Your task to perform on an android device: Is it going to rain tomorrow? Image 0: 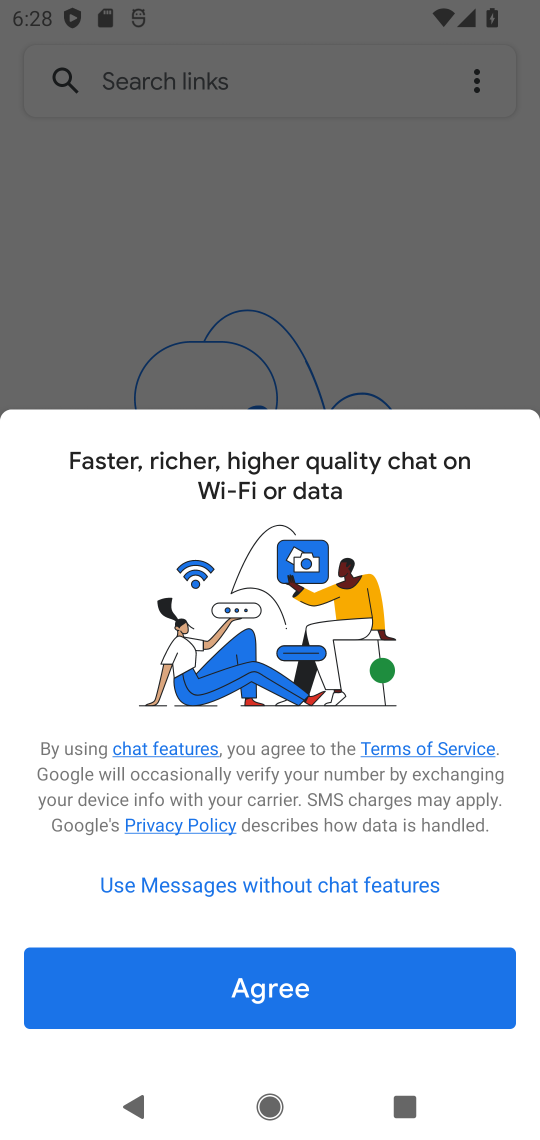
Step 0: press home button
Your task to perform on an android device: Is it going to rain tomorrow? Image 1: 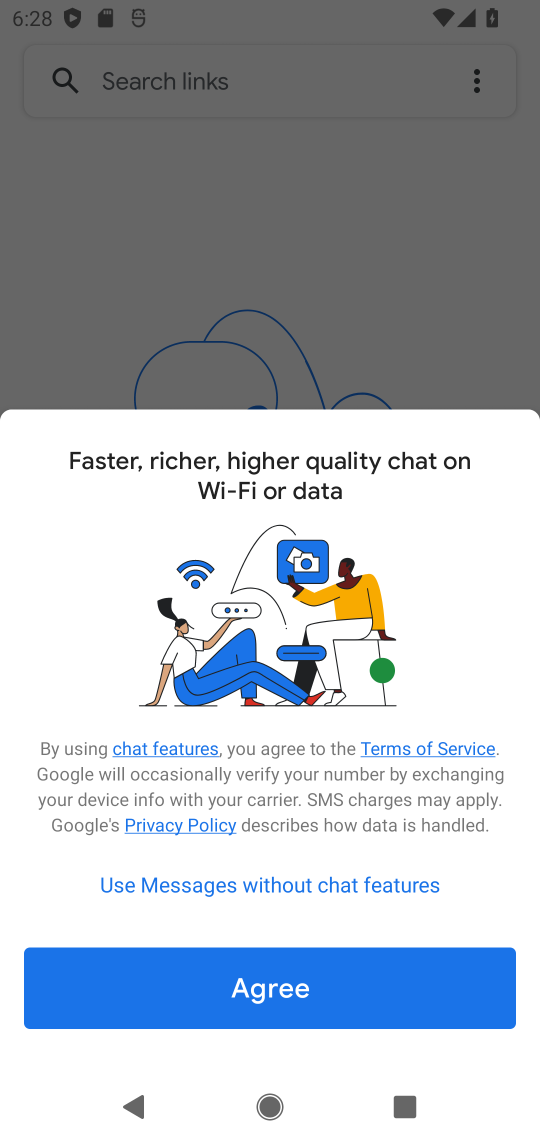
Step 1: press home button
Your task to perform on an android device: Is it going to rain tomorrow? Image 2: 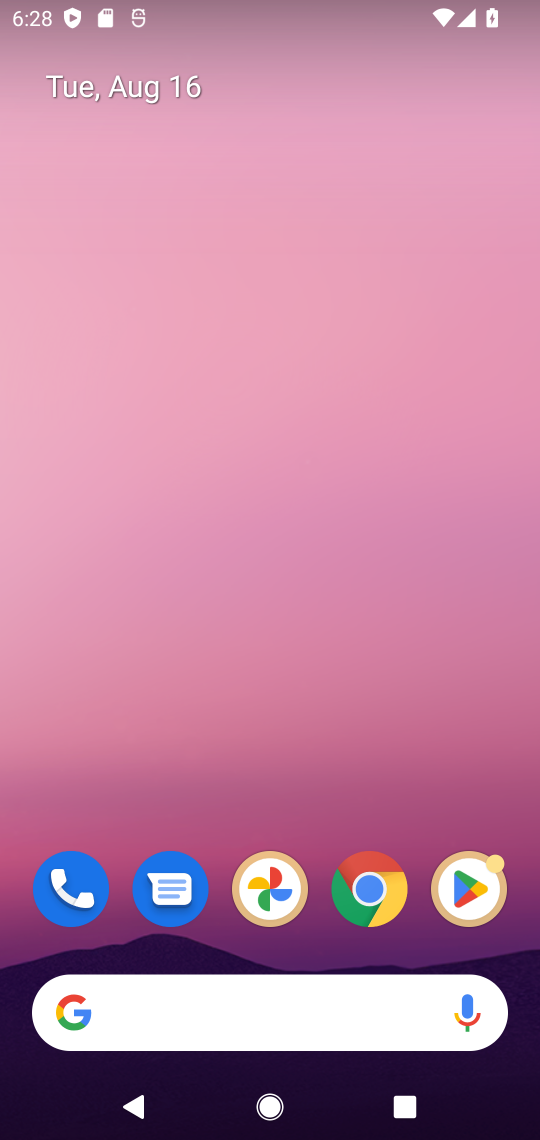
Step 2: drag from (354, 217) to (355, 5)
Your task to perform on an android device: Is it going to rain tomorrow? Image 3: 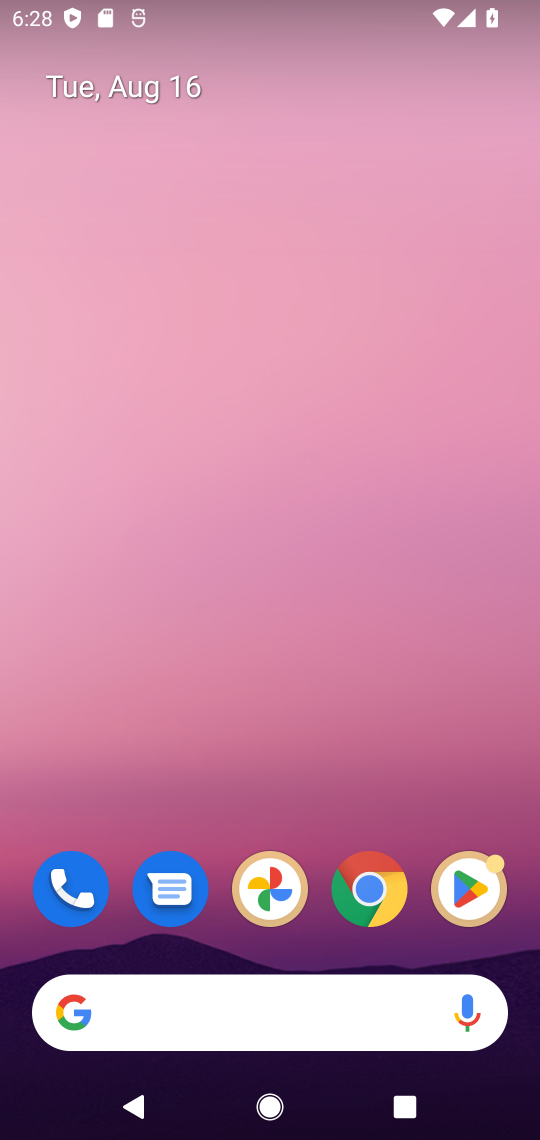
Step 3: drag from (320, 547) to (255, 11)
Your task to perform on an android device: Is it going to rain tomorrow? Image 4: 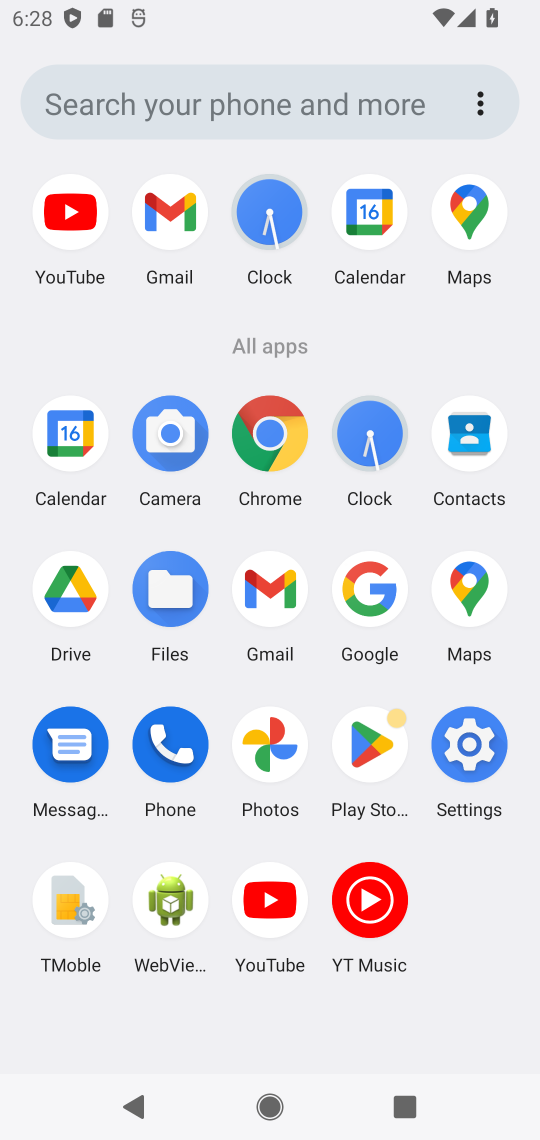
Step 4: click (270, 432)
Your task to perform on an android device: Is it going to rain tomorrow? Image 5: 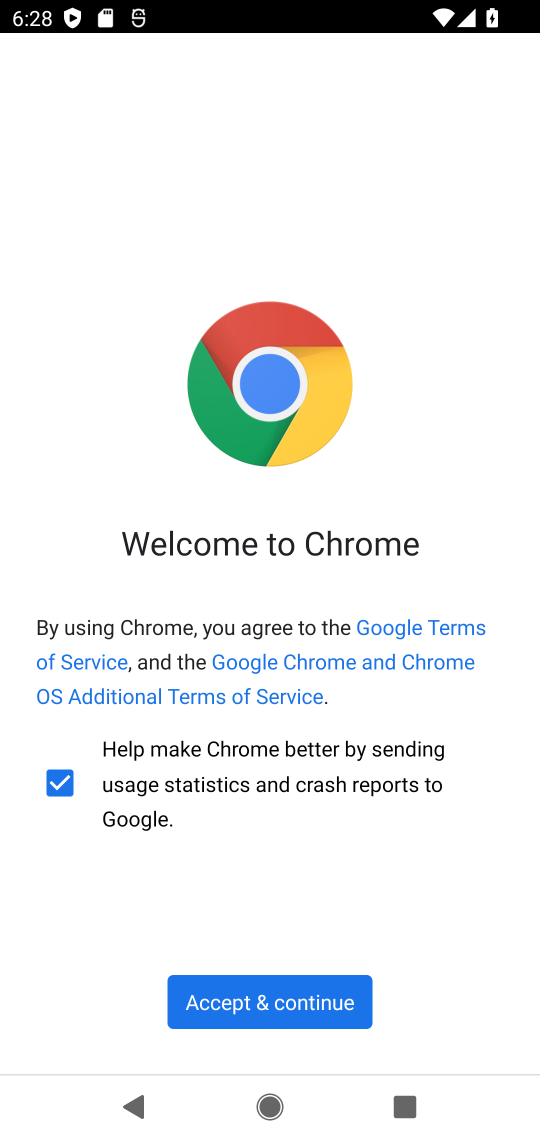
Step 5: click (303, 1002)
Your task to perform on an android device: Is it going to rain tomorrow? Image 6: 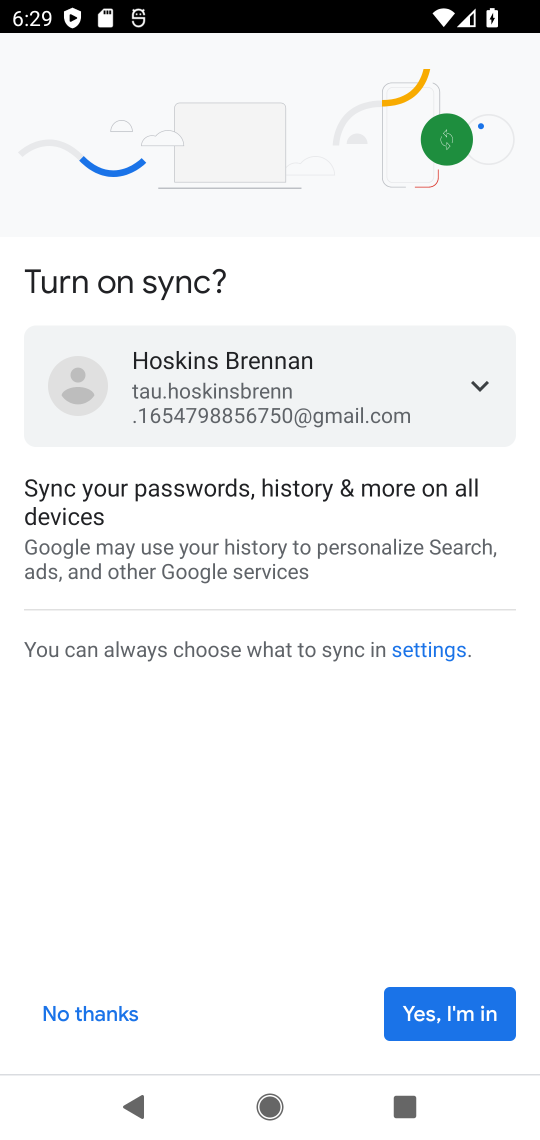
Step 6: click (469, 1005)
Your task to perform on an android device: Is it going to rain tomorrow? Image 7: 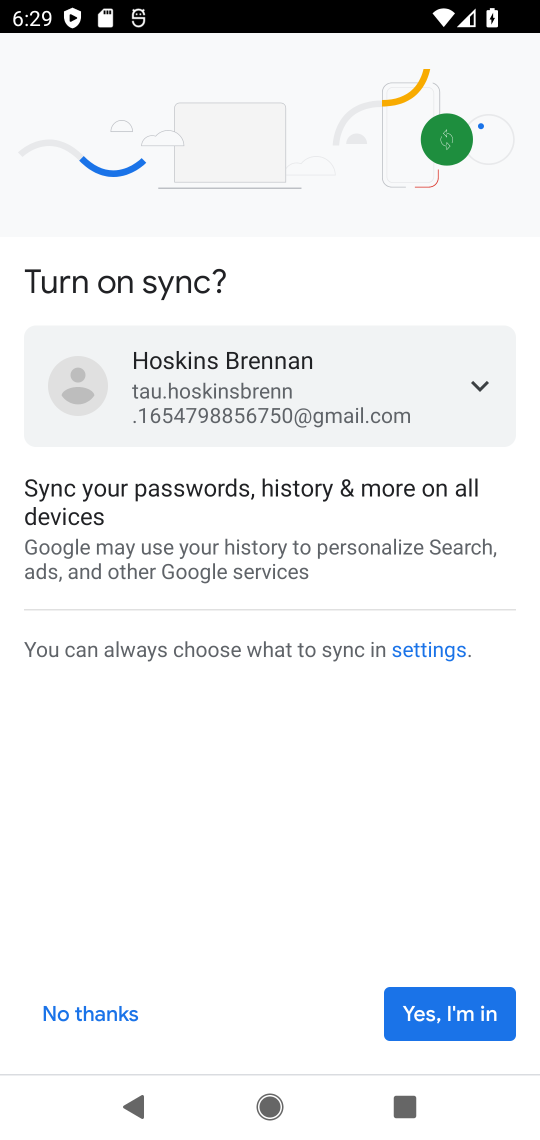
Step 7: click (469, 1005)
Your task to perform on an android device: Is it going to rain tomorrow? Image 8: 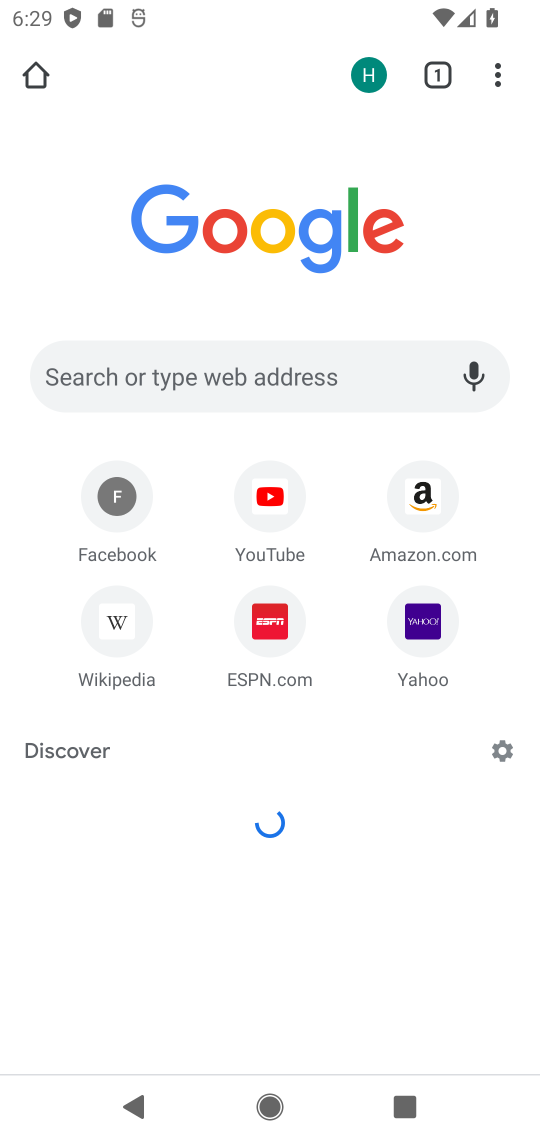
Step 8: click (283, 382)
Your task to perform on an android device: Is it going to rain tomorrow? Image 9: 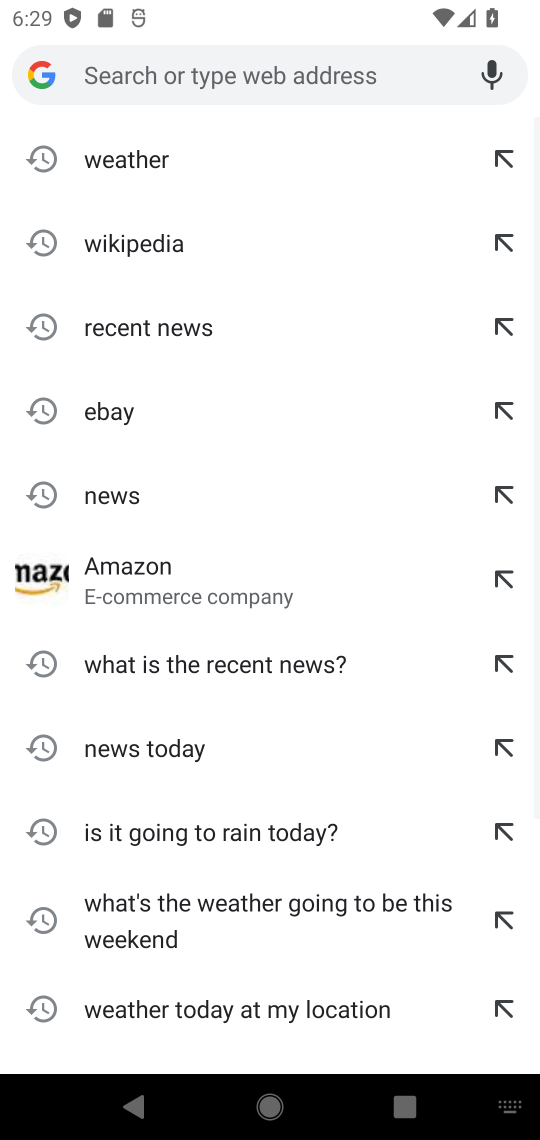
Step 9: click (125, 159)
Your task to perform on an android device: Is it going to rain tomorrow? Image 10: 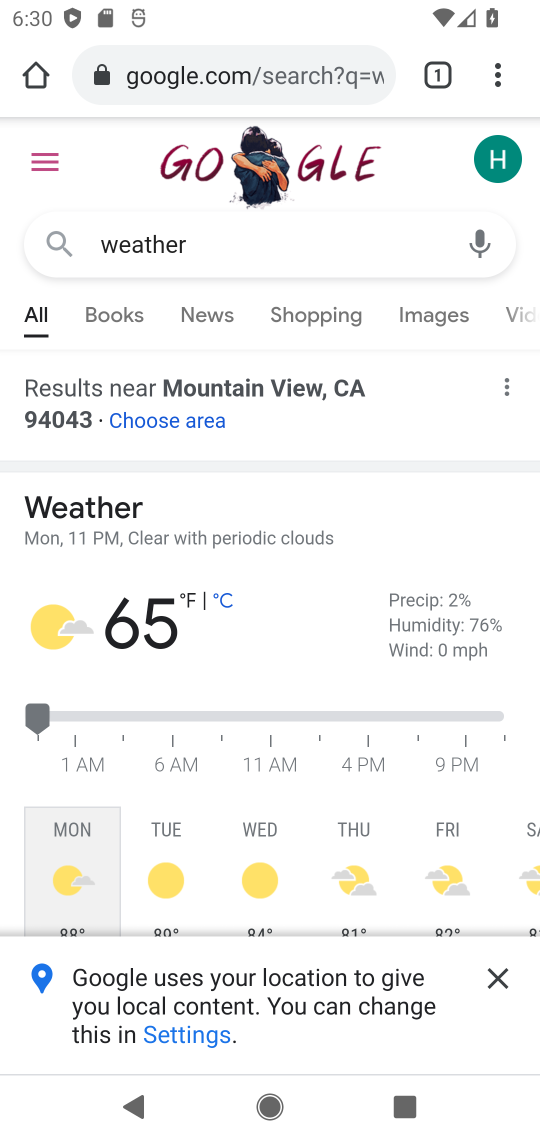
Step 10: click (167, 851)
Your task to perform on an android device: Is it going to rain tomorrow? Image 11: 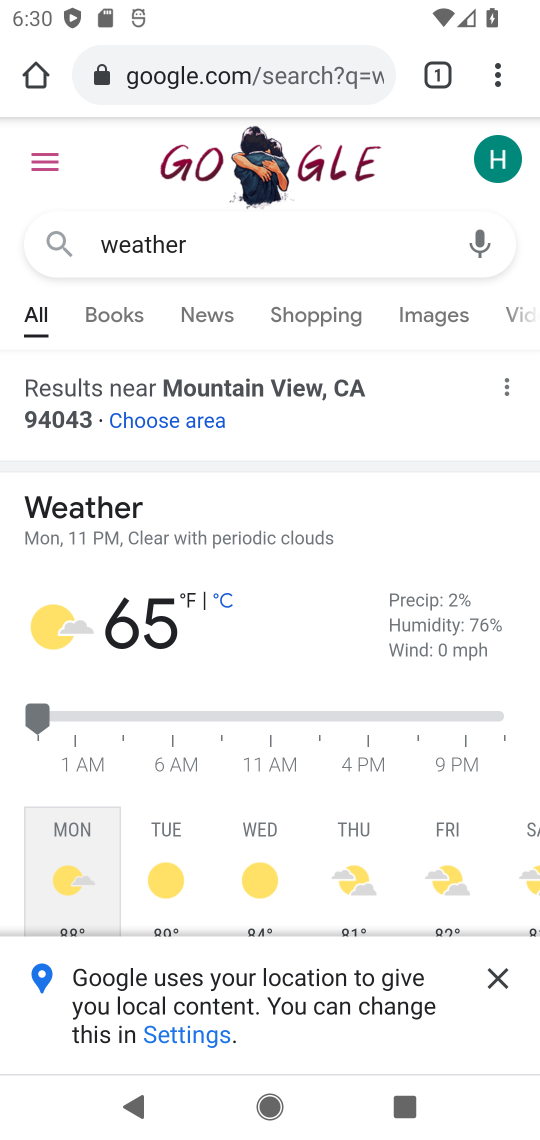
Step 11: click (170, 891)
Your task to perform on an android device: Is it going to rain tomorrow? Image 12: 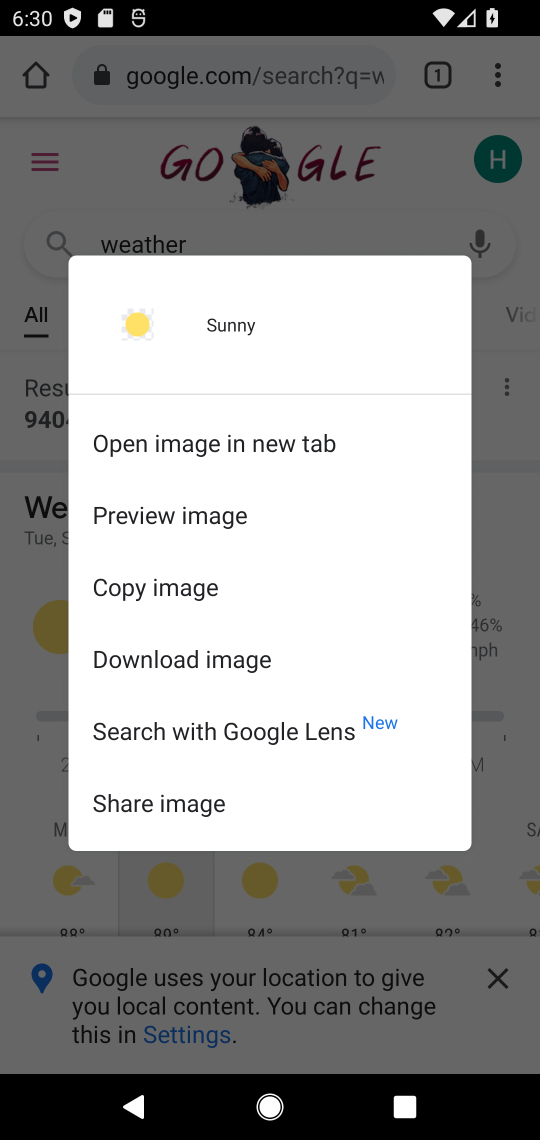
Step 12: click (506, 551)
Your task to perform on an android device: Is it going to rain tomorrow? Image 13: 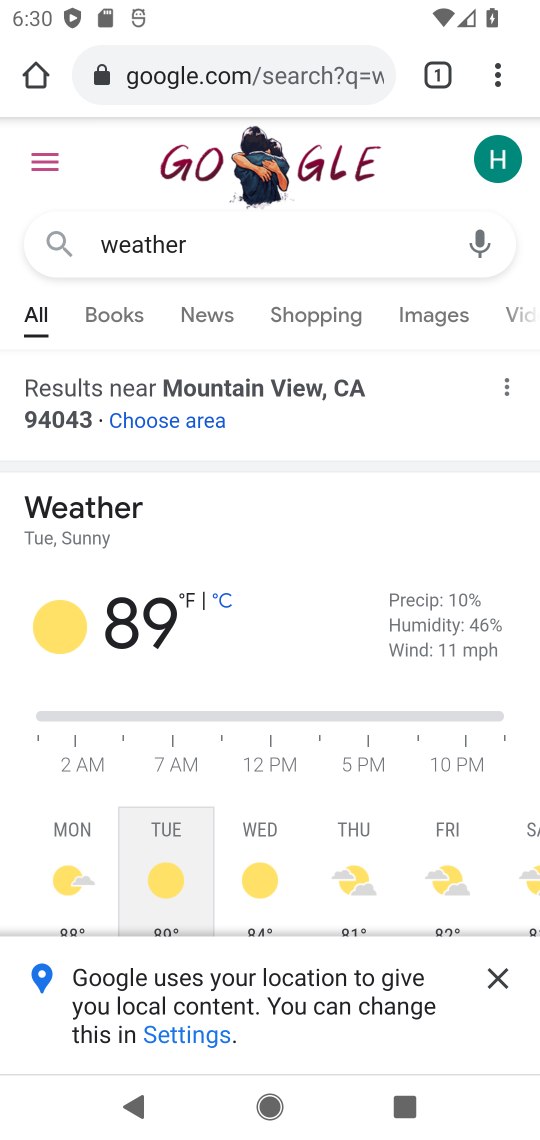
Step 13: task complete